Your task to perform on an android device: Open internet settings Image 0: 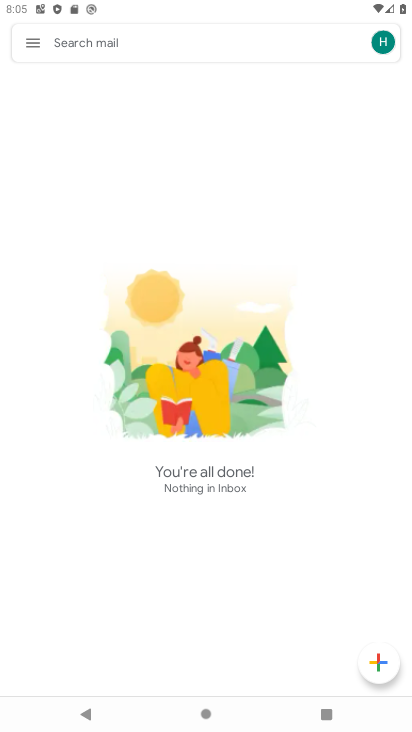
Step 0: press home button
Your task to perform on an android device: Open internet settings Image 1: 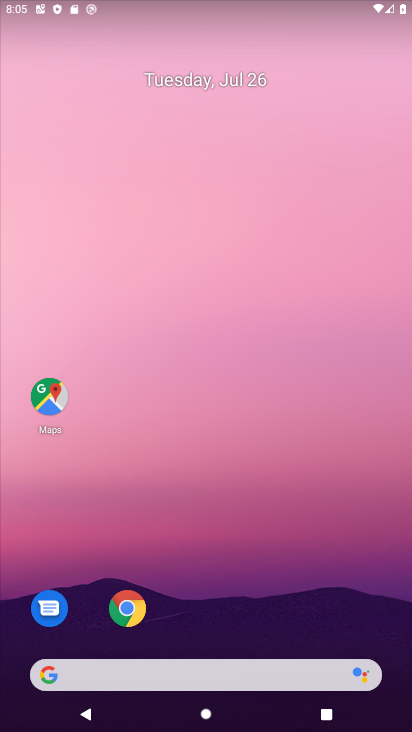
Step 1: drag from (130, 504) to (306, 304)
Your task to perform on an android device: Open internet settings Image 2: 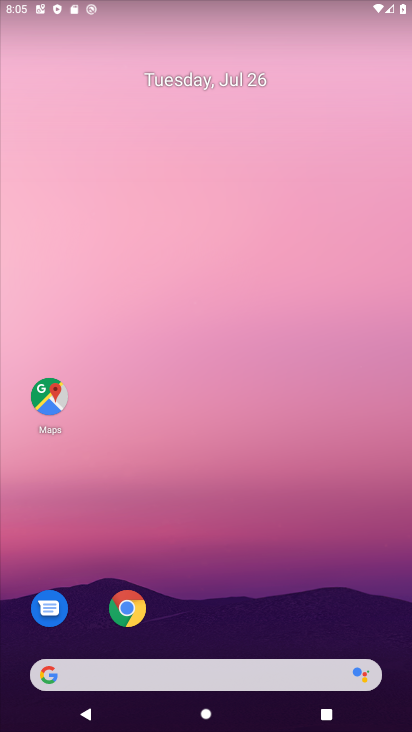
Step 2: drag from (49, 632) to (224, 189)
Your task to perform on an android device: Open internet settings Image 3: 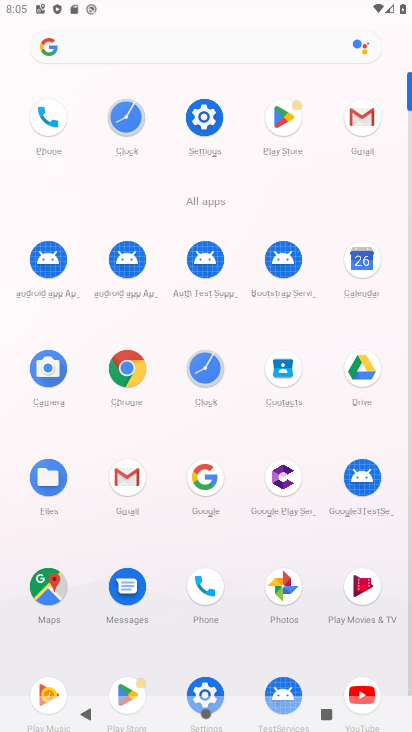
Step 3: click (204, 690)
Your task to perform on an android device: Open internet settings Image 4: 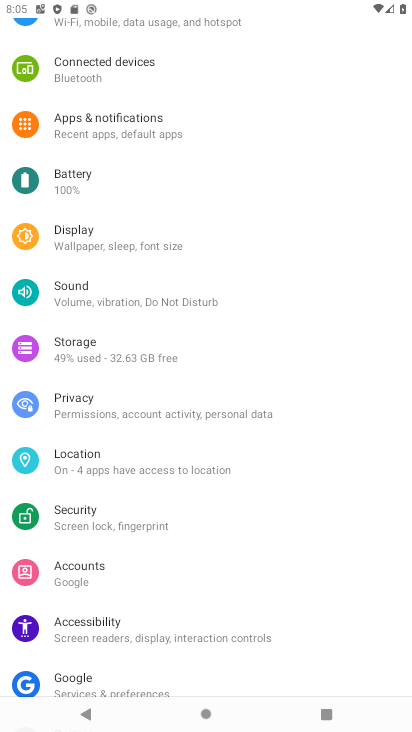
Step 4: drag from (254, 138) to (242, 484)
Your task to perform on an android device: Open internet settings Image 5: 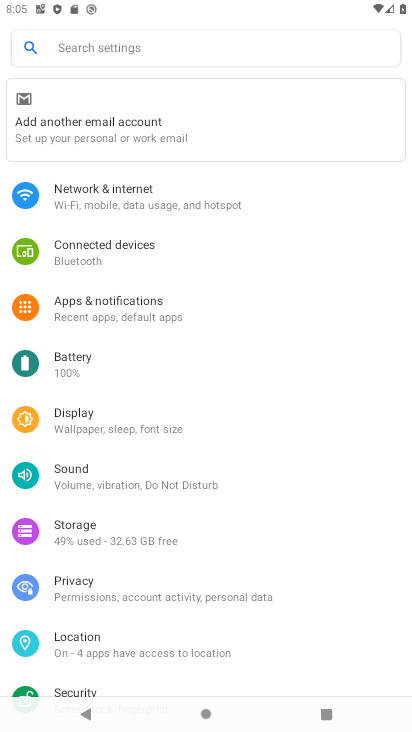
Step 5: click (105, 183)
Your task to perform on an android device: Open internet settings Image 6: 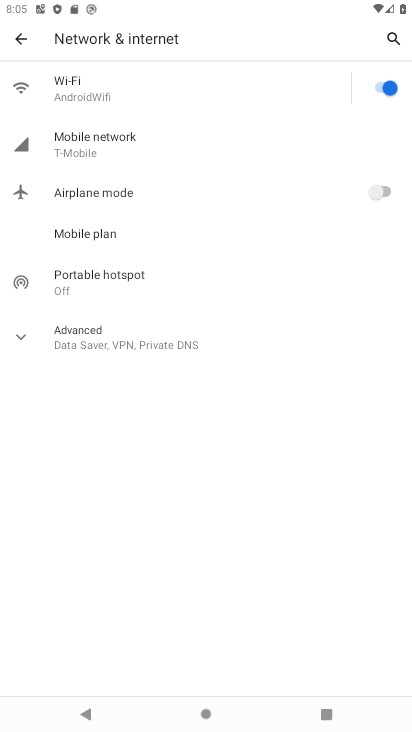
Step 6: task complete